Your task to perform on an android device: open wifi settings Image 0: 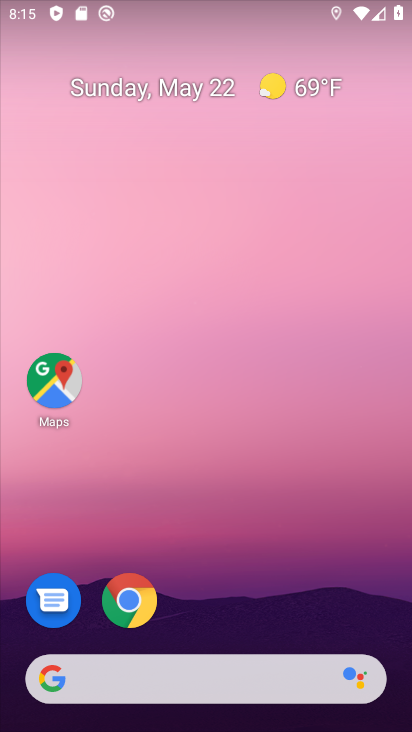
Step 0: drag from (244, 550) to (294, 152)
Your task to perform on an android device: open wifi settings Image 1: 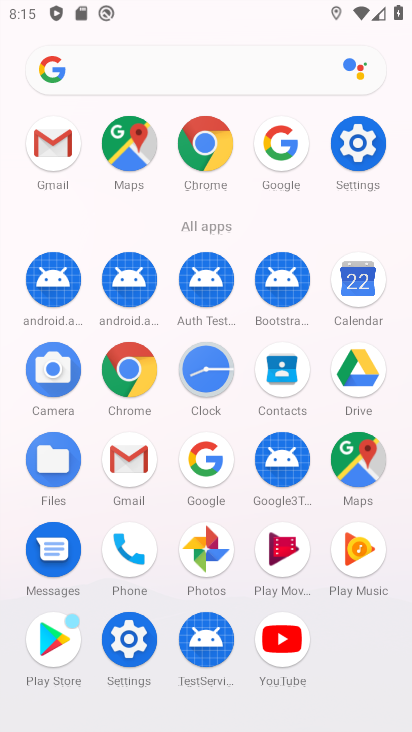
Step 1: click (351, 131)
Your task to perform on an android device: open wifi settings Image 2: 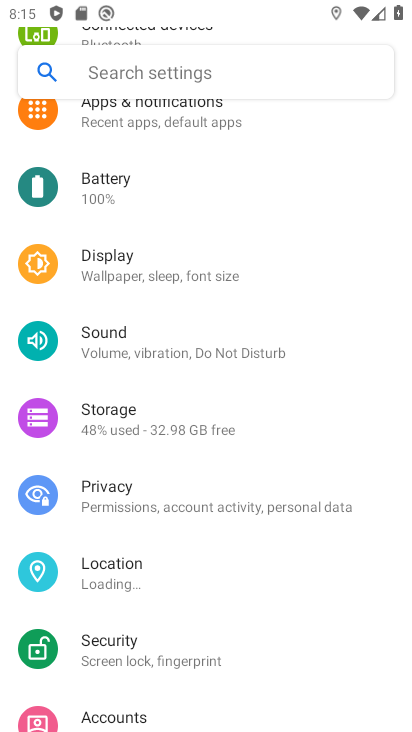
Step 2: drag from (153, 145) to (219, 545)
Your task to perform on an android device: open wifi settings Image 3: 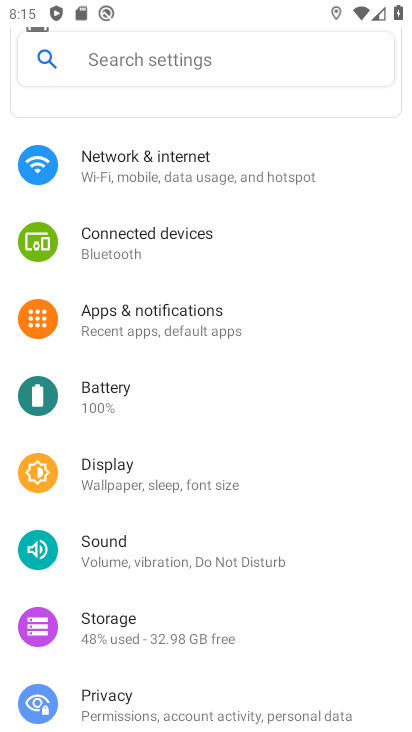
Step 3: click (156, 177)
Your task to perform on an android device: open wifi settings Image 4: 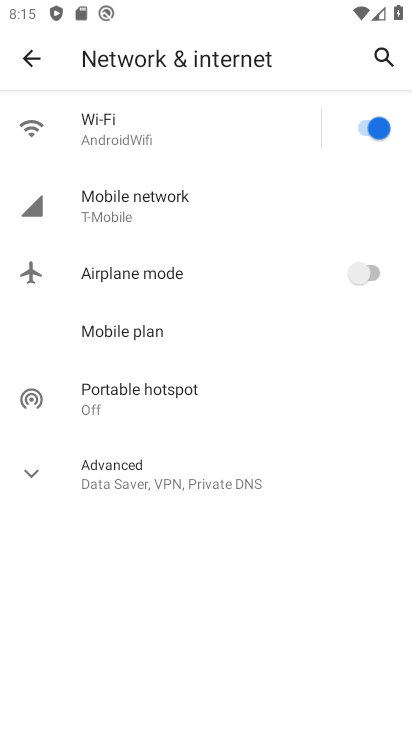
Step 4: click (181, 122)
Your task to perform on an android device: open wifi settings Image 5: 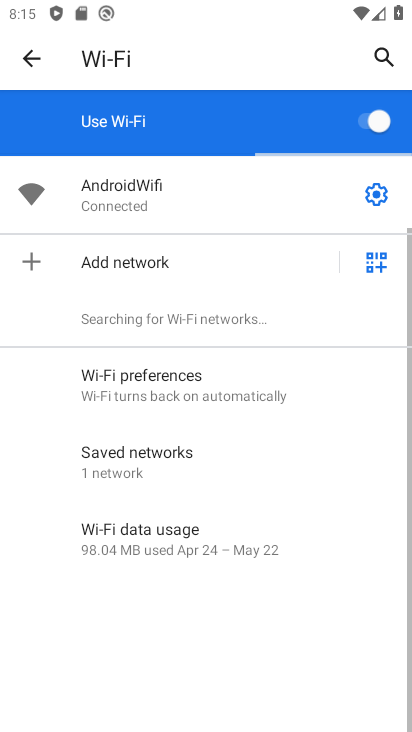
Step 5: click (376, 194)
Your task to perform on an android device: open wifi settings Image 6: 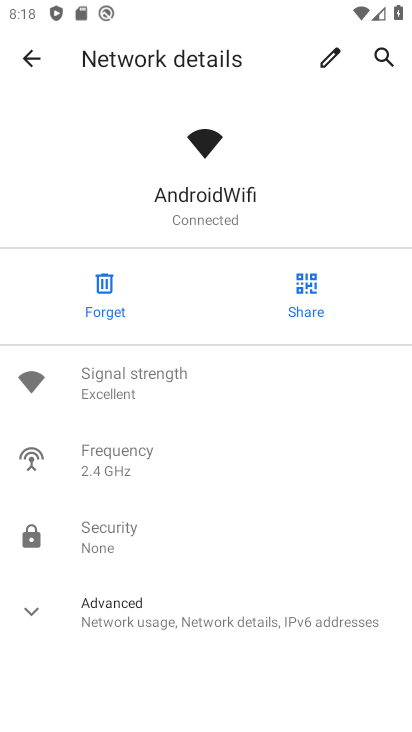
Step 6: task complete